Your task to perform on an android device: toggle notifications settings in the gmail app Image 0: 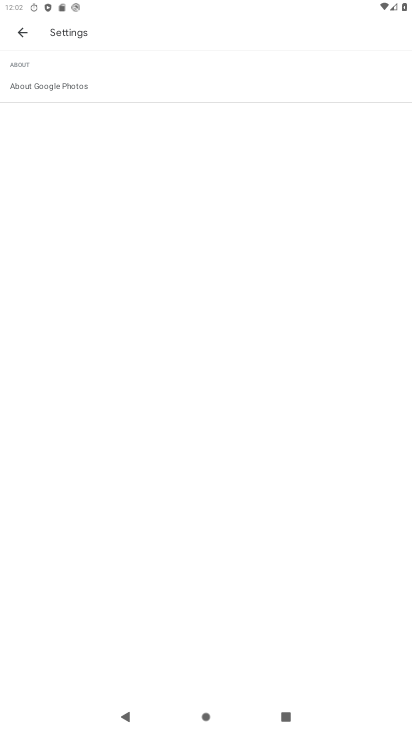
Step 0: press home button
Your task to perform on an android device: toggle notifications settings in the gmail app Image 1: 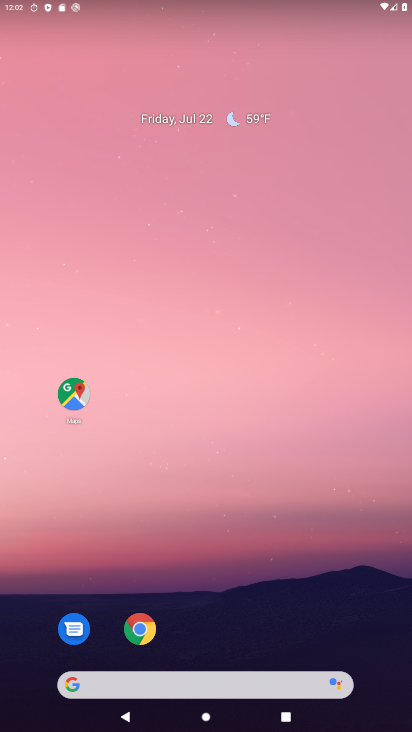
Step 1: drag from (279, 708) to (327, 32)
Your task to perform on an android device: toggle notifications settings in the gmail app Image 2: 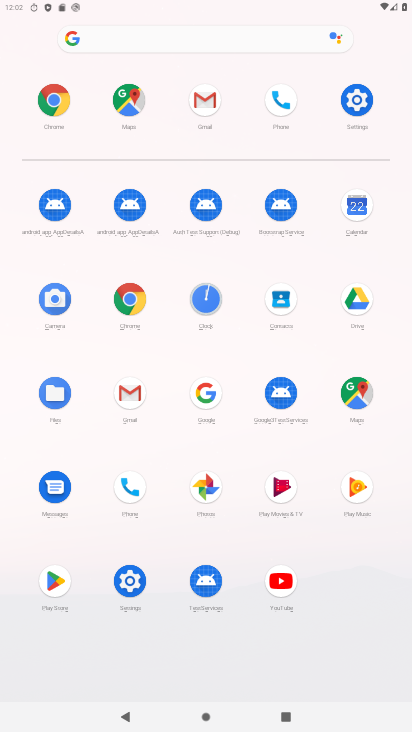
Step 2: click (129, 408)
Your task to perform on an android device: toggle notifications settings in the gmail app Image 3: 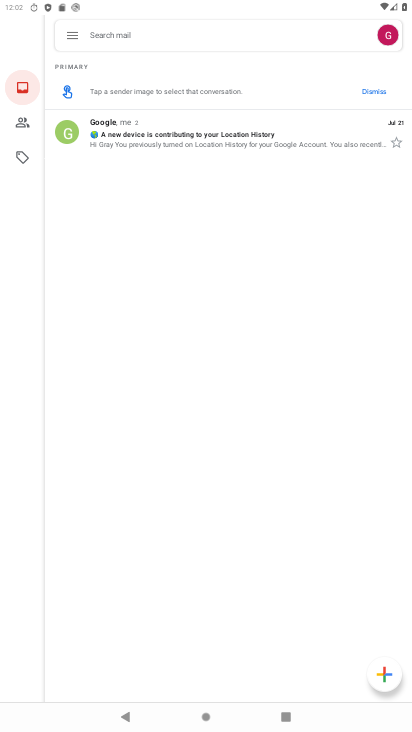
Step 3: click (79, 35)
Your task to perform on an android device: toggle notifications settings in the gmail app Image 4: 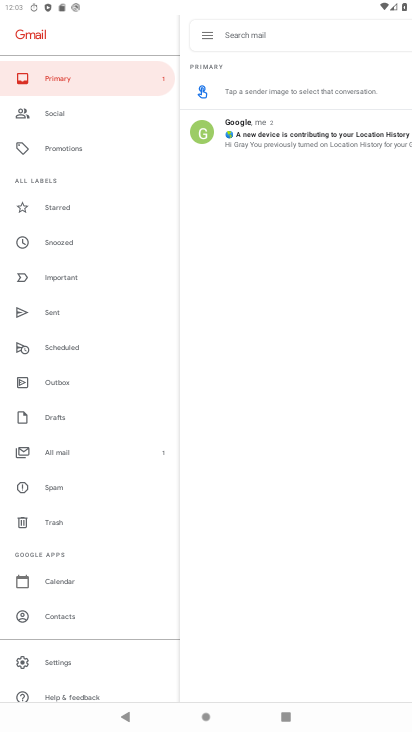
Step 4: click (72, 670)
Your task to perform on an android device: toggle notifications settings in the gmail app Image 5: 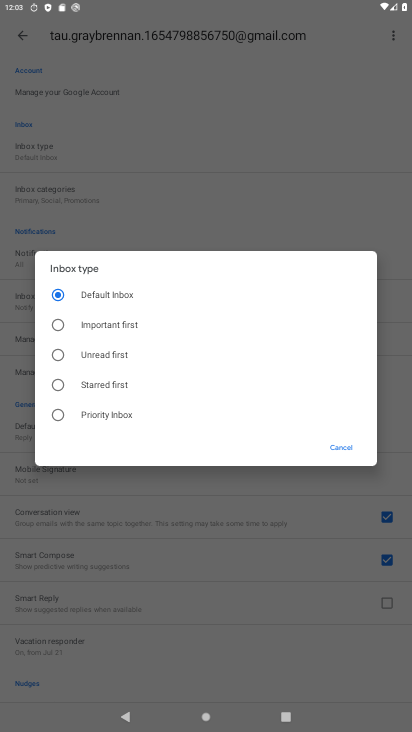
Step 5: click (54, 412)
Your task to perform on an android device: toggle notifications settings in the gmail app Image 6: 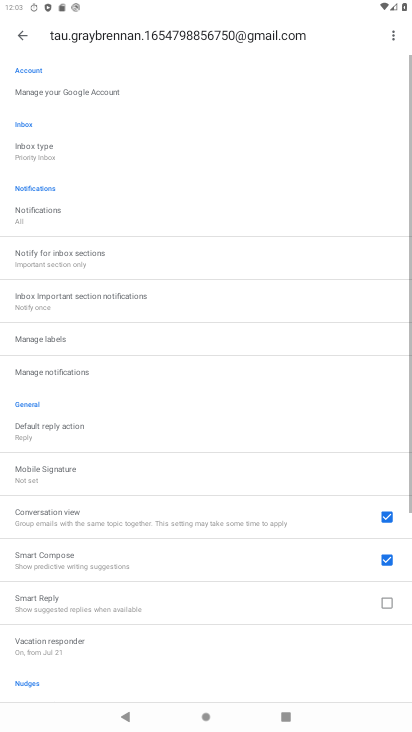
Step 6: task complete